Your task to perform on an android device: turn off sleep mode Image 0: 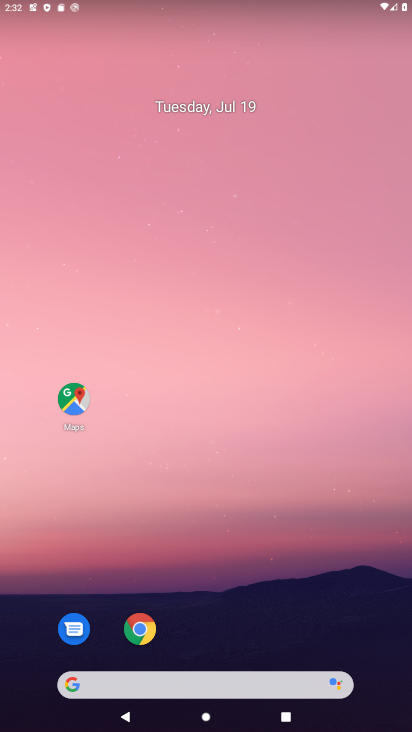
Step 0: drag from (226, 418) to (184, 94)
Your task to perform on an android device: turn off sleep mode Image 1: 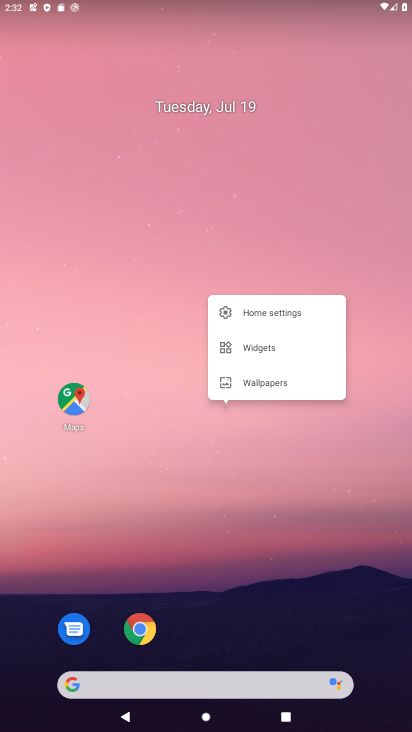
Step 1: drag from (210, 587) to (257, 294)
Your task to perform on an android device: turn off sleep mode Image 2: 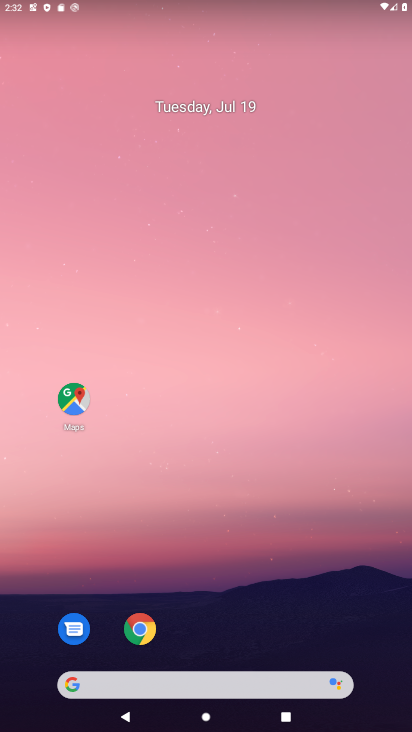
Step 2: drag from (295, 285) to (228, 70)
Your task to perform on an android device: turn off sleep mode Image 3: 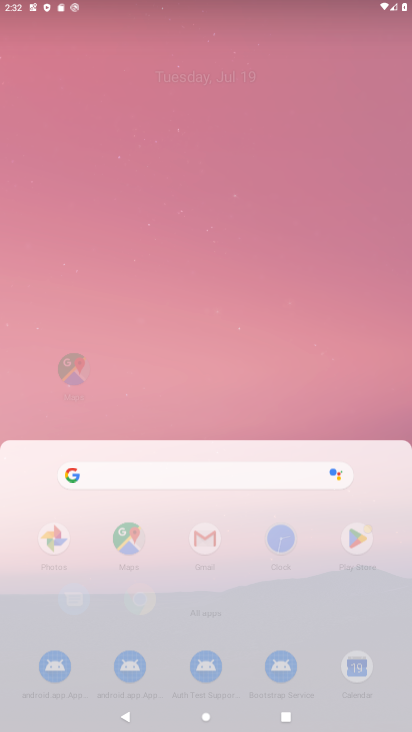
Step 3: drag from (223, 572) to (185, 236)
Your task to perform on an android device: turn off sleep mode Image 4: 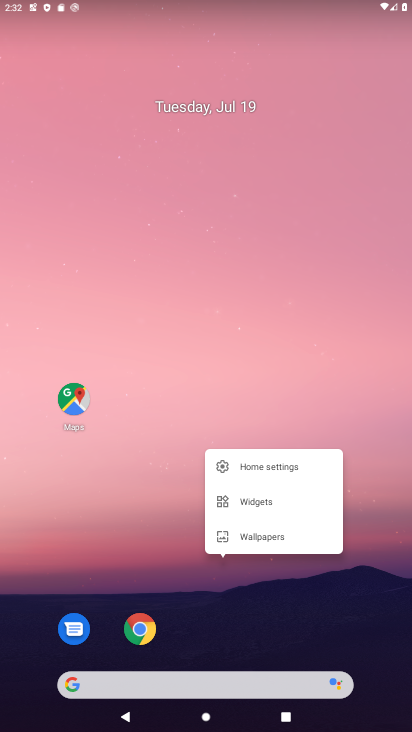
Step 4: drag from (258, 615) to (230, 56)
Your task to perform on an android device: turn off sleep mode Image 5: 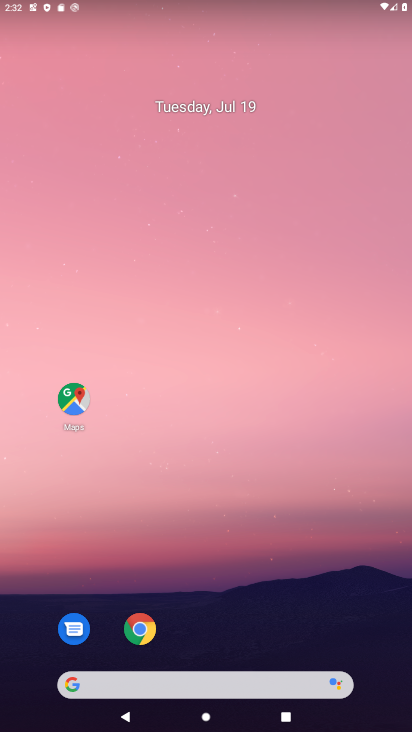
Step 5: drag from (183, 603) to (183, 55)
Your task to perform on an android device: turn off sleep mode Image 6: 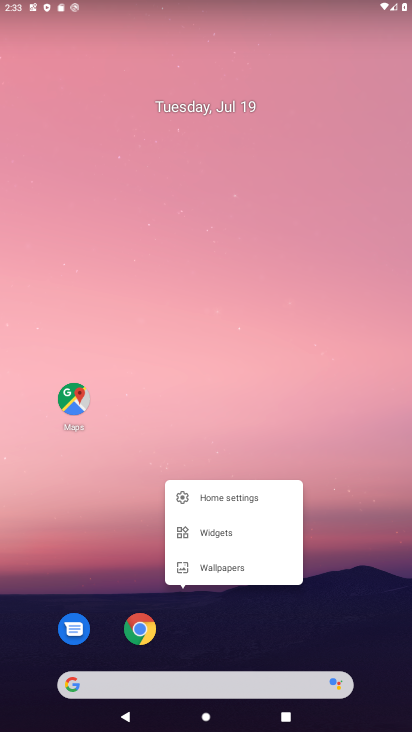
Step 6: click (140, 84)
Your task to perform on an android device: turn off sleep mode Image 7: 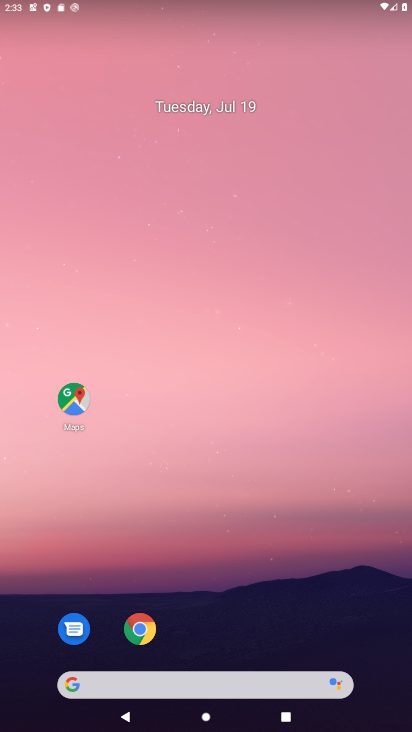
Step 7: drag from (208, 660) to (85, 16)
Your task to perform on an android device: turn off sleep mode Image 8: 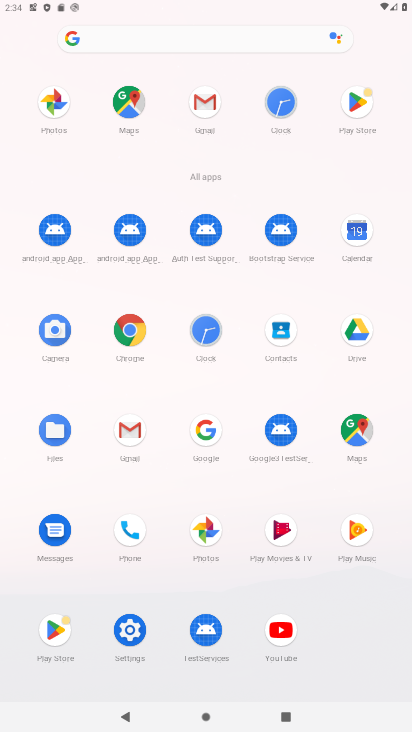
Step 8: click (126, 695)
Your task to perform on an android device: turn off sleep mode Image 9: 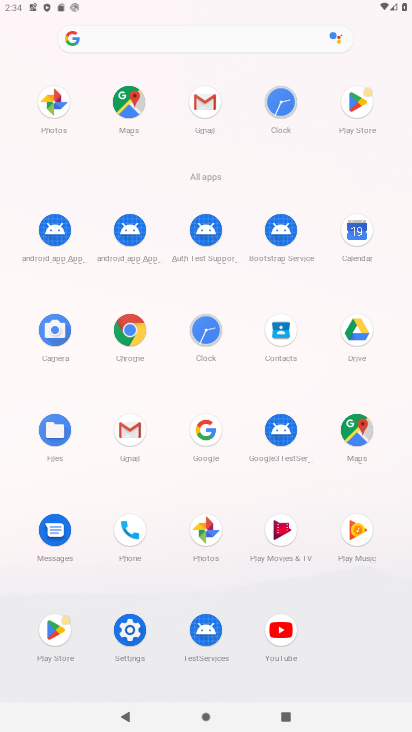
Step 9: click (120, 630)
Your task to perform on an android device: turn off sleep mode Image 10: 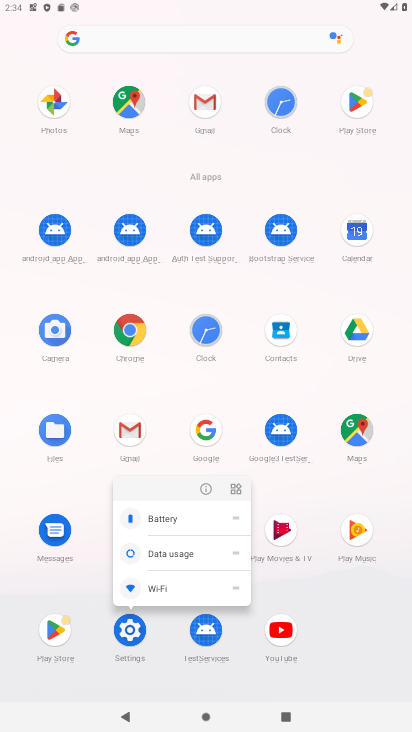
Step 10: click (120, 630)
Your task to perform on an android device: turn off sleep mode Image 11: 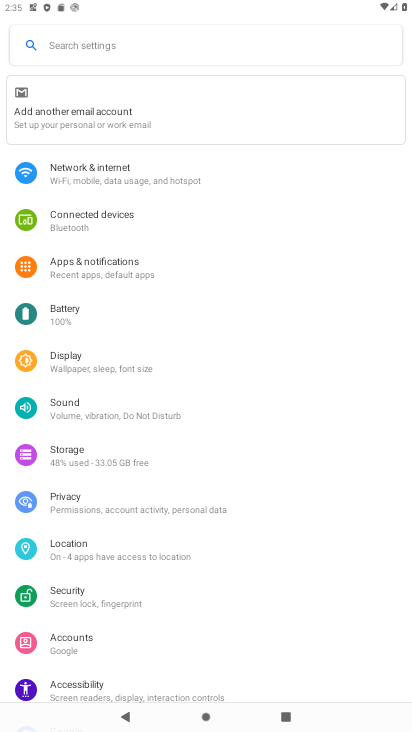
Step 11: task complete